Your task to perform on an android device: Empty the shopping cart on amazon. Search for corsair k70 on amazon, select the first entry, add it to the cart, then select checkout. Image 0: 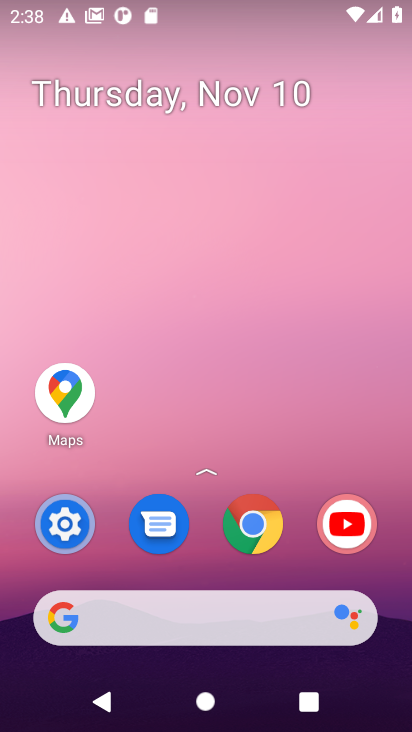
Step 0: click (257, 524)
Your task to perform on an android device: Empty the shopping cart on amazon. Search for corsair k70 on amazon, select the first entry, add it to the cart, then select checkout. Image 1: 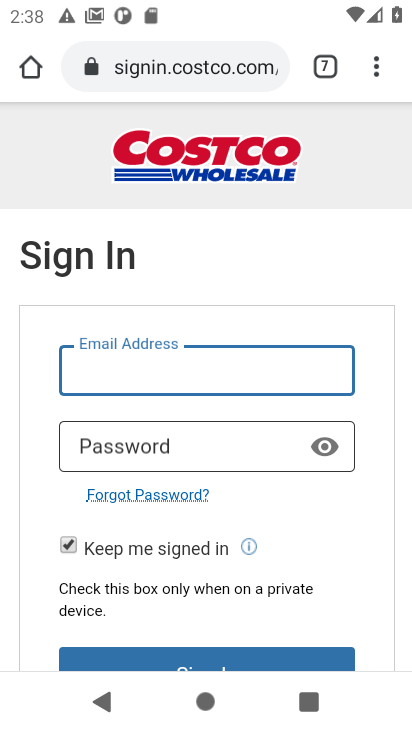
Step 1: click (327, 65)
Your task to perform on an android device: Empty the shopping cart on amazon. Search for corsair k70 on amazon, select the first entry, add it to the cart, then select checkout. Image 2: 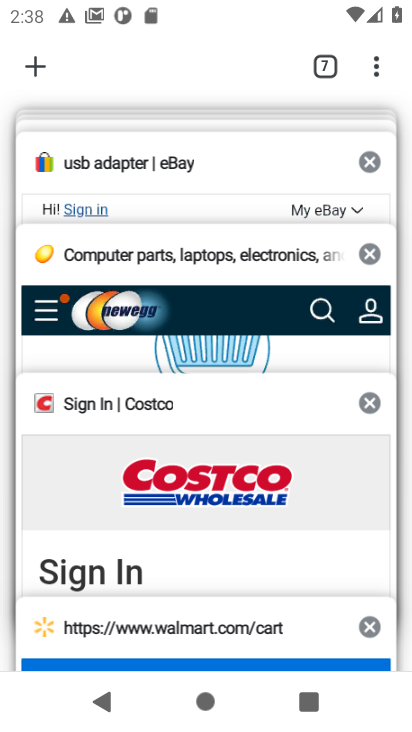
Step 2: drag from (244, 130) to (235, 329)
Your task to perform on an android device: Empty the shopping cart on amazon. Search for corsair k70 on amazon, select the first entry, add it to the cart, then select checkout. Image 3: 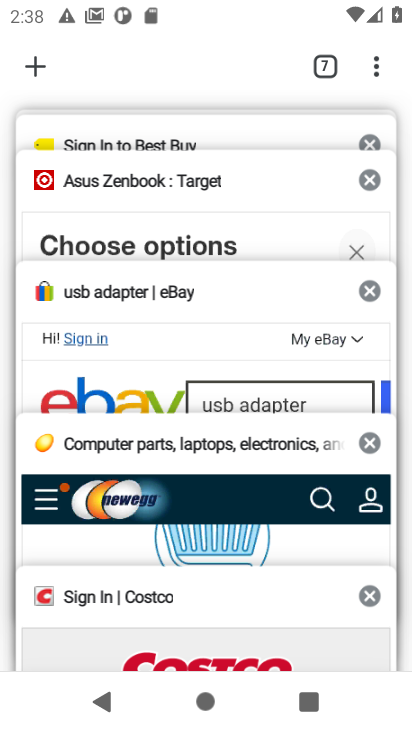
Step 3: drag from (200, 139) to (185, 283)
Your task to perform on an android device: Empty the shopping cart on amazon. Search for corsair k70 on amazon, select the first entry, add it to the cart, then select checkout. Image 4: 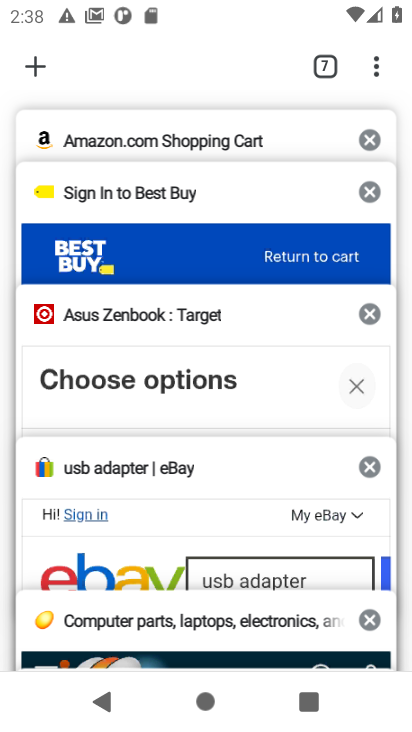
Step 4: click (229, 132)
Your task to perform on an android device: Empty the shopping cart on amazon. Search for corsair k70 on amazon, select the first entry, add it to the cart, then select checkout. Image 5: 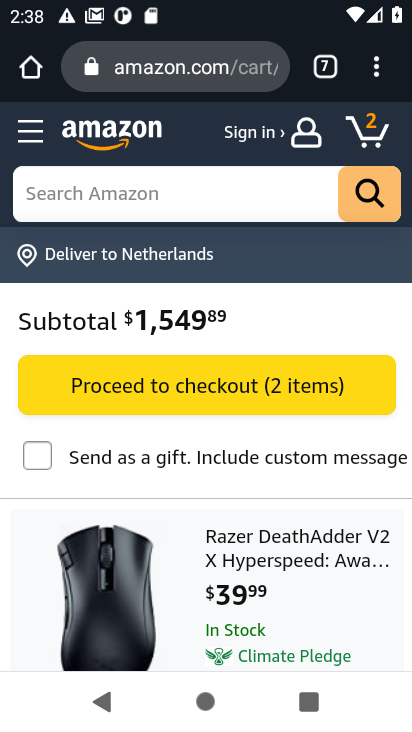
Step 5: click (207, 204)
Your task to perform on an android device: Empty the shopping cart on amazon. Search for corsair k70 on amazon, select the first entry, add it to the cart, then select checkout. Image 6: 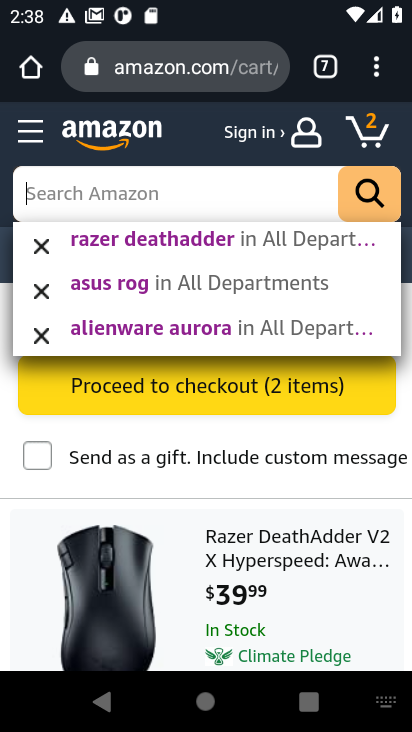
Step 6: type "corsair k70 "
Your task to perform on an android device: Empty the shopping cart on amazon. Search for corsair k70 on amazon, select the first entry, add it to the cart, then select checkout. Image 7: 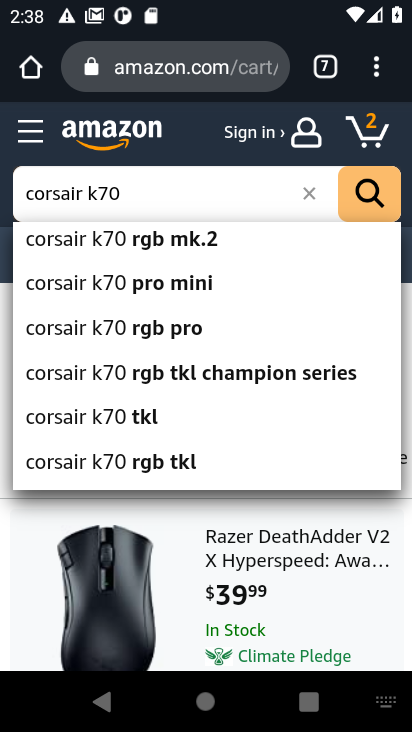
Step 7: click (369, 191)
Your task to perform on an android device: Empty the shopping cart on amazon. Search for corsair k70 on amazon, select the first entry, add it to the cart, then select checkout. Image 8: 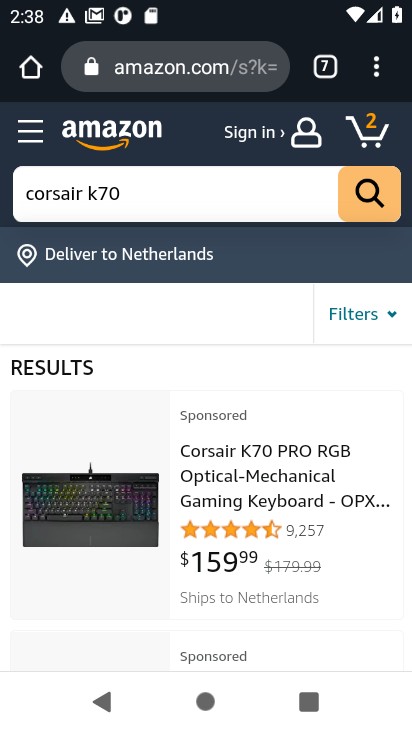
Step 8: click (260, 476)
Your task to perform on an android device: Empty the shopping cart on amazon. Search for corsair k70 on amazon, select the first entry, add it to the cart, then select checkout. Image 9: 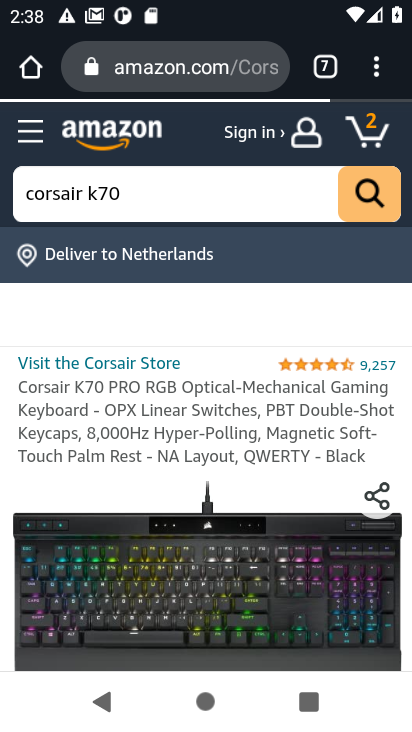
Step 9: drag from (316, 477) to (309, 163)
Your task to perform on an android device: Empty the shopping cart on amazon. Search for corsair k70 on amazon, select the first entry, add it to the cart, then select checkout. Image 10: 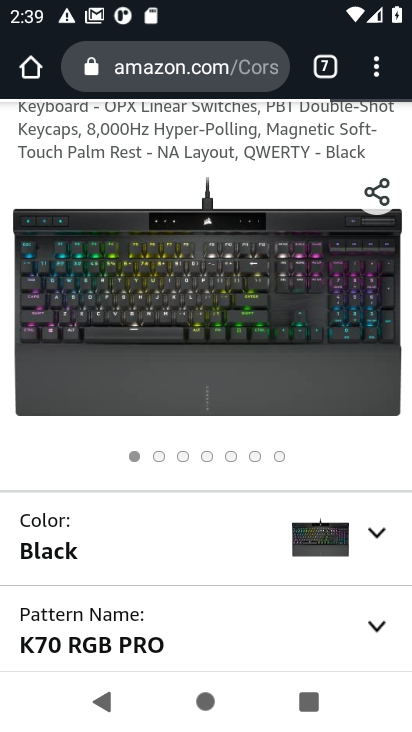
Step 10: drag from (222, 559) to (197, 228)
Your task to perform on an android device: Empty the shopping cart on amazon. Search for corsair k70 on amazon, select the first entry, add it to the cart, then select checkout. Image 11: 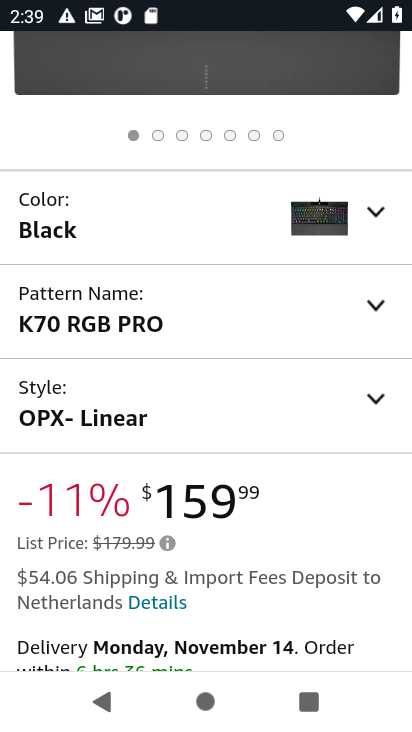
Step 11: drag from (184, 555) to (235, 103)
Your task to perform on an android device: Empty the shopping cart on amazon. Search for corsair k70 on amazon, select the first entry, add it to the cart, then select checkout. Image 12: 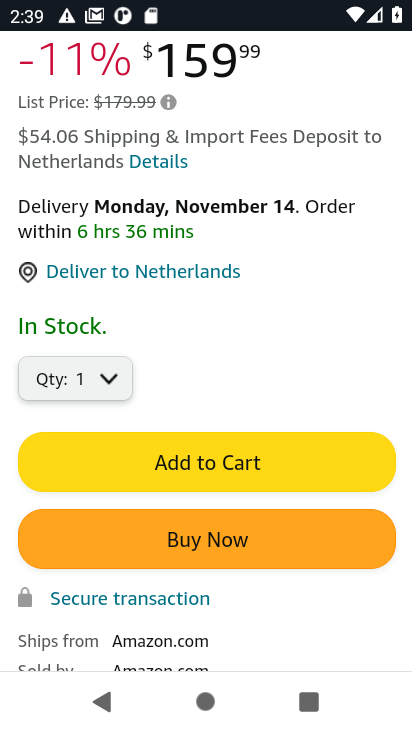
Step 12: click (234, 454)
Your task to perform on an android device: Empty the shopping cart on amazon. Search for corsair k70 on amazon, select the first entry, add it to the cart, then select checkout. Image 13: 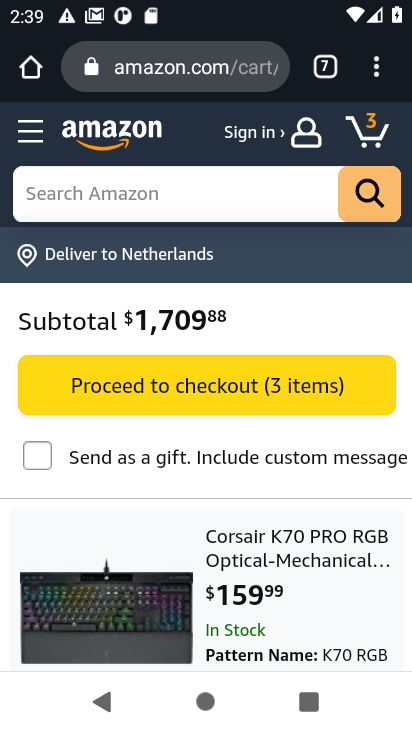
Step 13: click (369, 119)
Your task to perform on an android device: Empty the shopping cart on amazon. Search for corsair k70 on amazon, select the first entry, add it to the cart, then select checkout. Image 14: 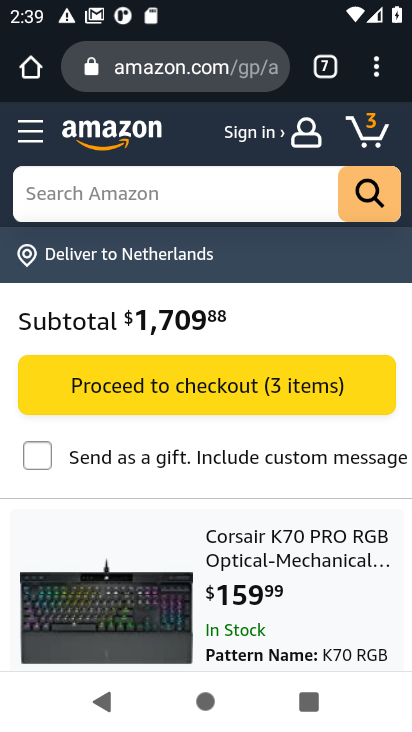
Step 14: drag from (255, 490) to (295, 159)
Your task to perform on an android device: Empty the shopping cart on amazon. Search for corsair k70 on amazon, select the first entry, add it to the cart, then select checkout. Image 15: 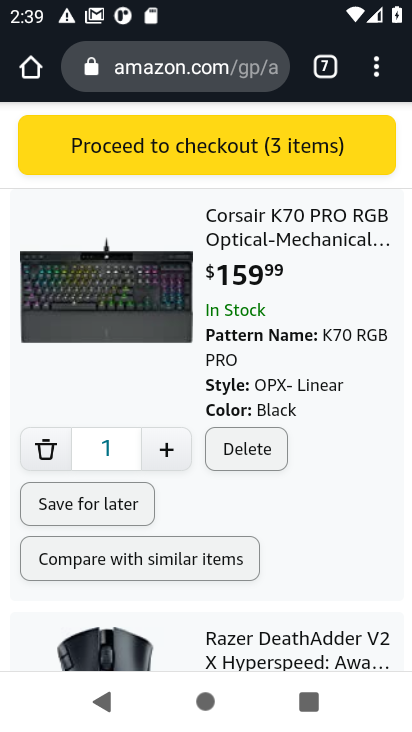
Step 15: drag from (285, 516) to (277, 149)
Your task to perform on an android device: Empty the shopping cart on amazon. Search for corsair k70 on amazon, select the first entry, add it to the cart, then select checkout. Image 16: 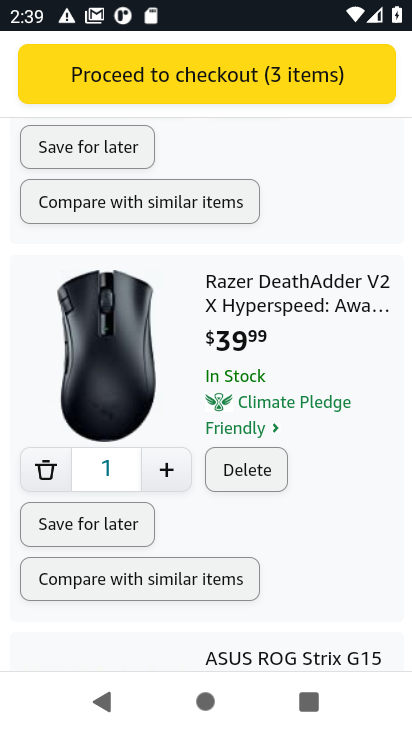
Step 16: click (239, 473)
Your task to perform on an android device: Empty the shopping cart on amazon. Search for corsair k70 on amazon, select the first entry, add it to the cart, then select checkout. Image 17: 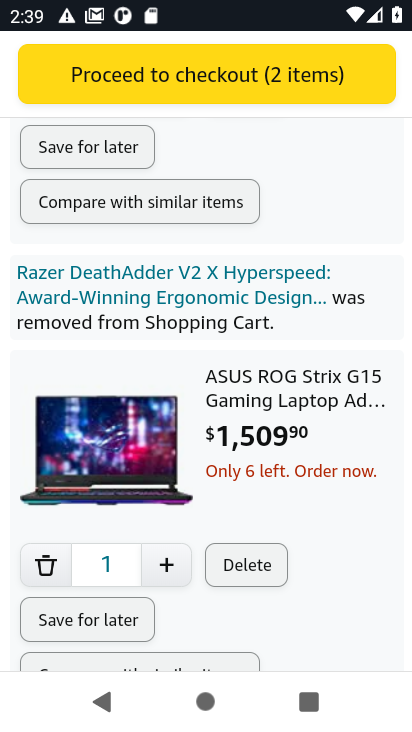
Step 17: click (266, 560)
Your task to perform on an android device: Empty the shopping cart on amazon. Search for corsair k70 on amazon, select the first entry, add it to the cart, then select checkout. Image 18: 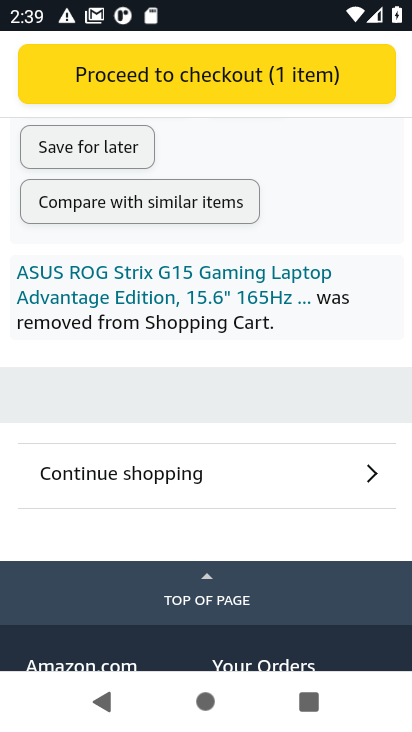
Step 18: task complete